Your task to perform on an android device: Open Google Maps and go to "Timeline" Image 0: 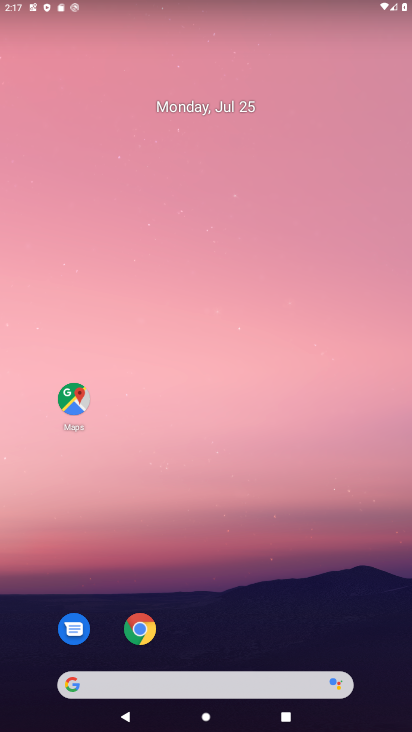
Step 0: drag from (203, 544) to (237, 2)
Your task to perform on an android device: Open Google Maps and go to "Timeline" Image 1: 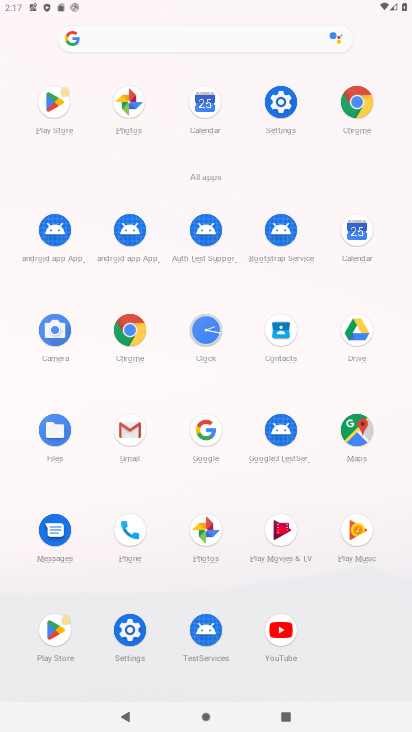
Step 1: click (355, 442)
Your task to perform on an android device: Open Google Maps and go to "Timeline" Image 2: 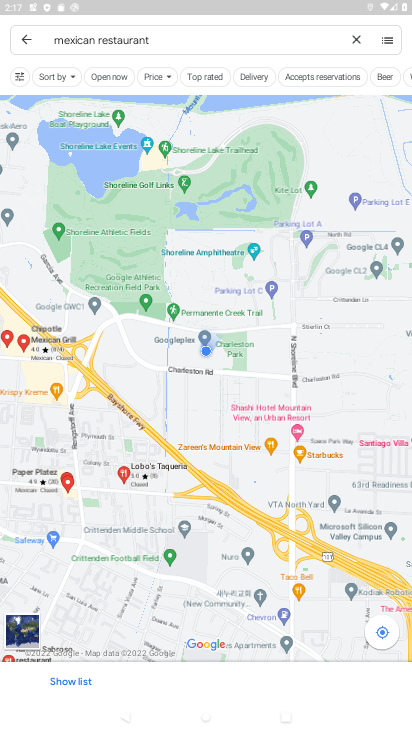
Step 2: click (22, 38)
Your task to perform on an android device: Open Google Maps and go to "Timeline" Image 3: 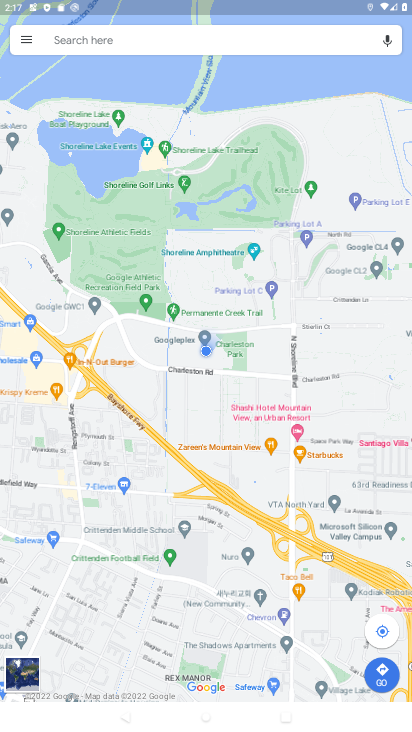
Step 3: click (22, 39)
Your task to perform on an android device: Open Google Maps and go to "Timeline" Image 4: 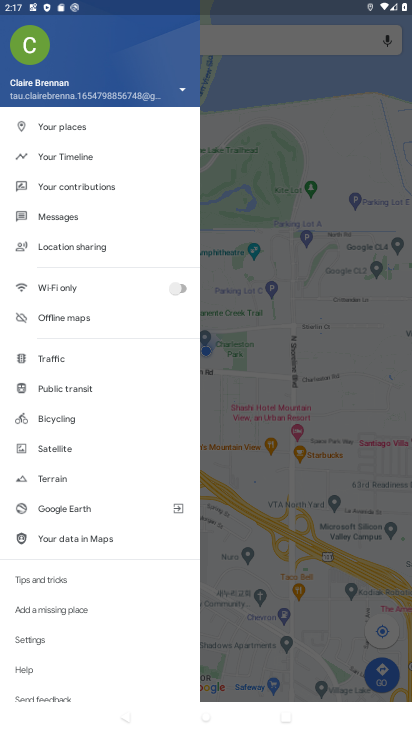
Step 4: click (76, 158)
Your task to perform on an android device: Open Google Maps and go to "Timeline" Image 5: 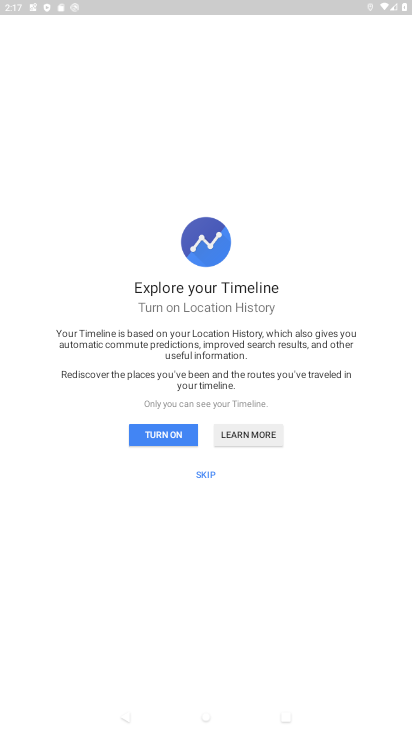
Step 5: click (201, 468)
Your task to perform on an android device: Open Google Maps and go to "Timeline" Image 6: 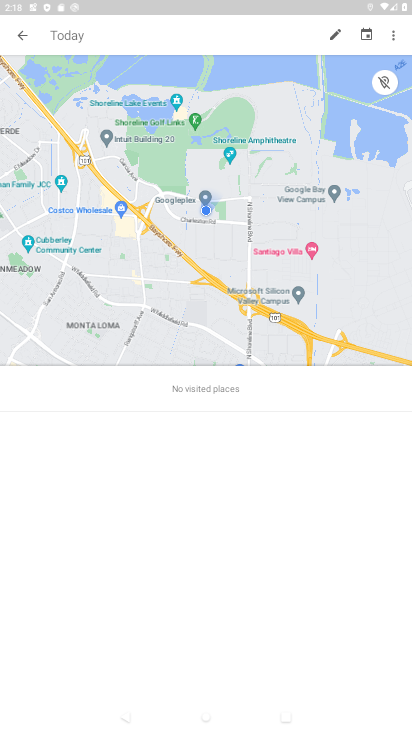
Step 6: task complete